Your task to perform on an android device: Open CNN.com Image 0: 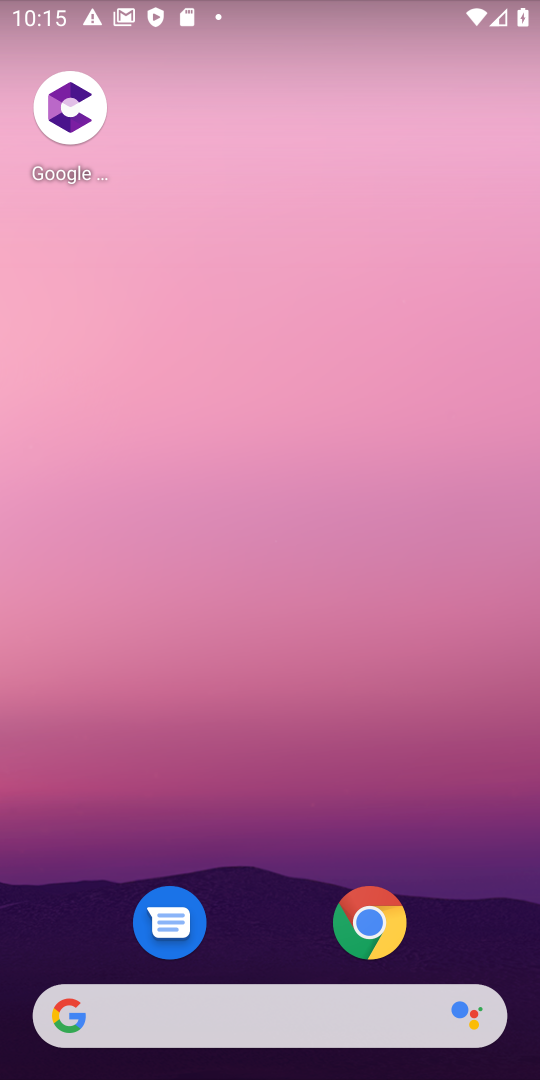
Step 0: drag from (303, 383) to (307, 19)
Your task to perform on an android device: Open CNN.com Image 1: 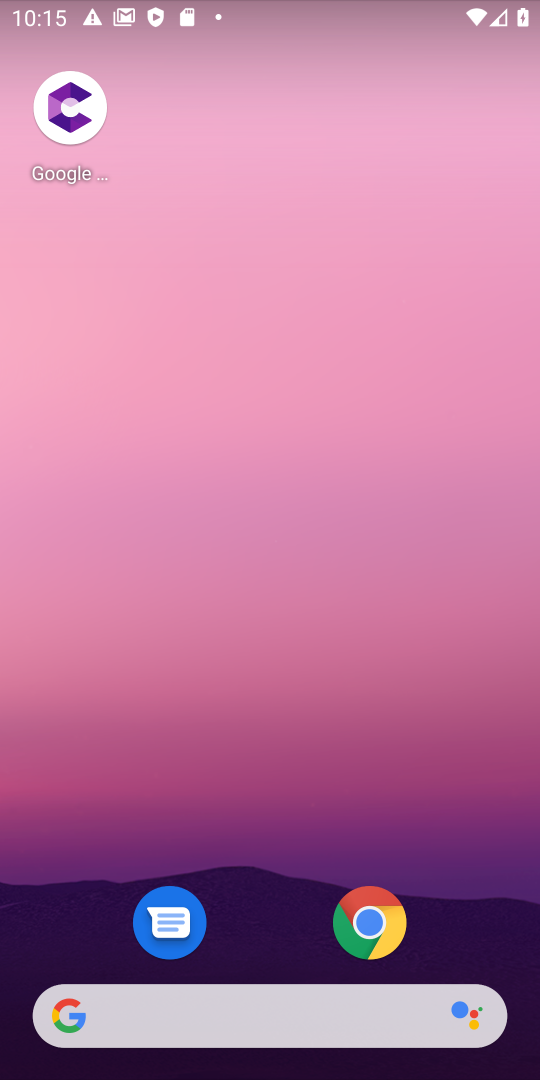
Step 1: drag from (294, 932) to (418, 120)
Your task to perform on an android device: Open CNN.com Image 2: 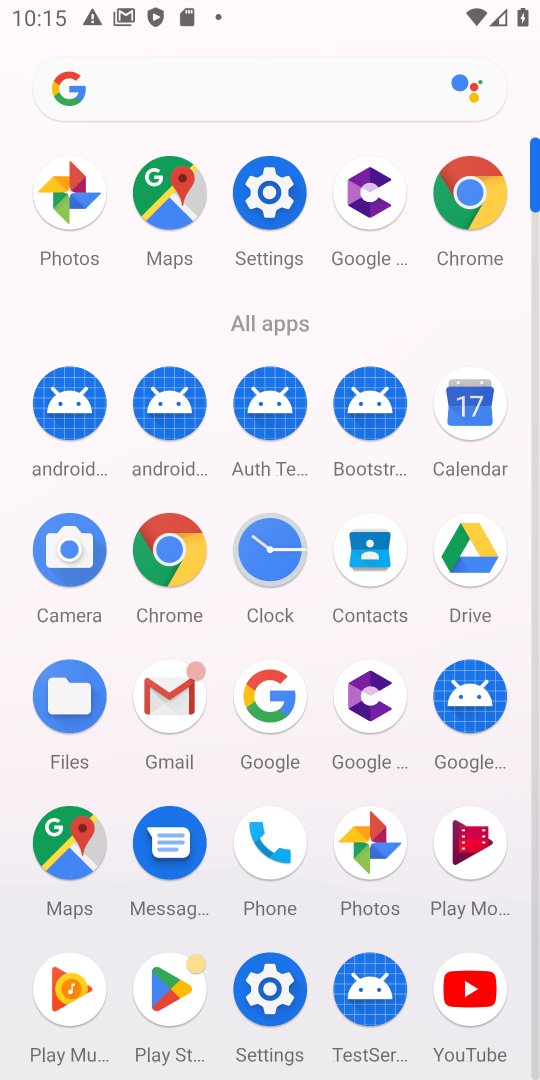
Step 2: click (171, 552)
Your task to perform on an android device: Open CNN.com Image 3: 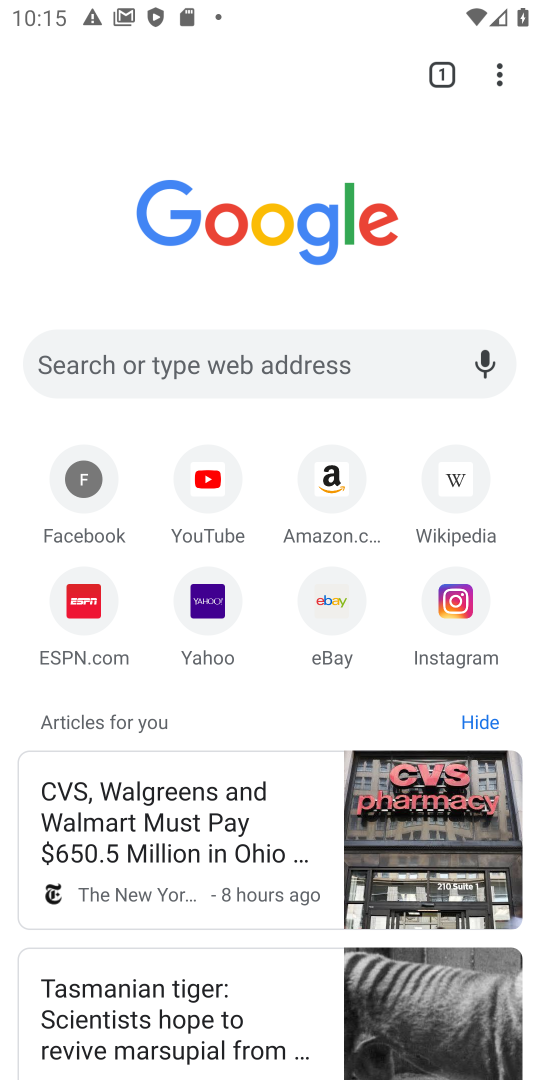
Step 3: click (310, 365)
Your task to perform on an android device: Open CNN.com Image 4: 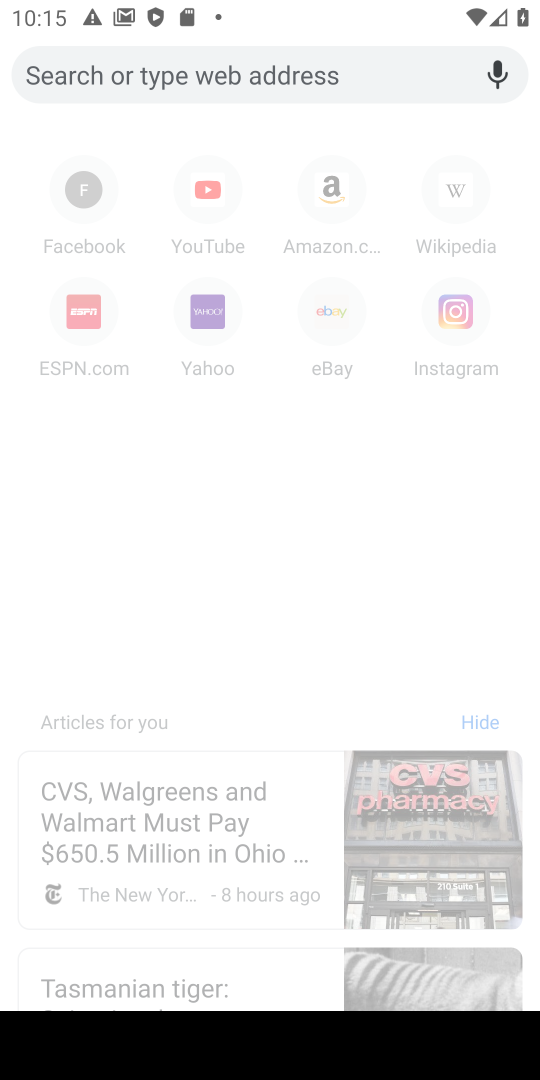
Step 4: type "cnn.cim"
Your task to perform on an android device: Open CNN.com Image 5: 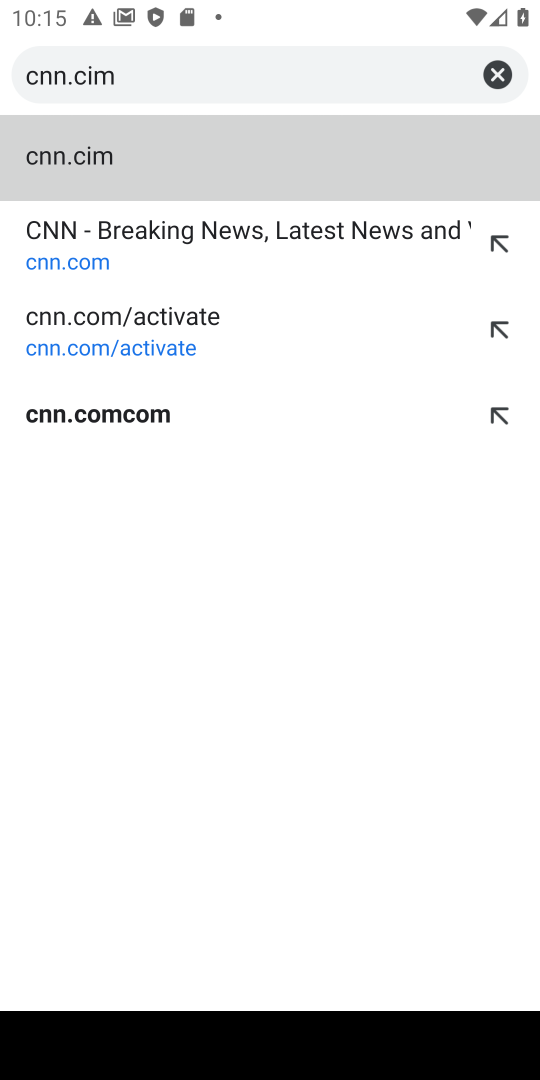
Step 5: click (180, 172)
Your task to perform on an android device: Open CNN.com Image 6: 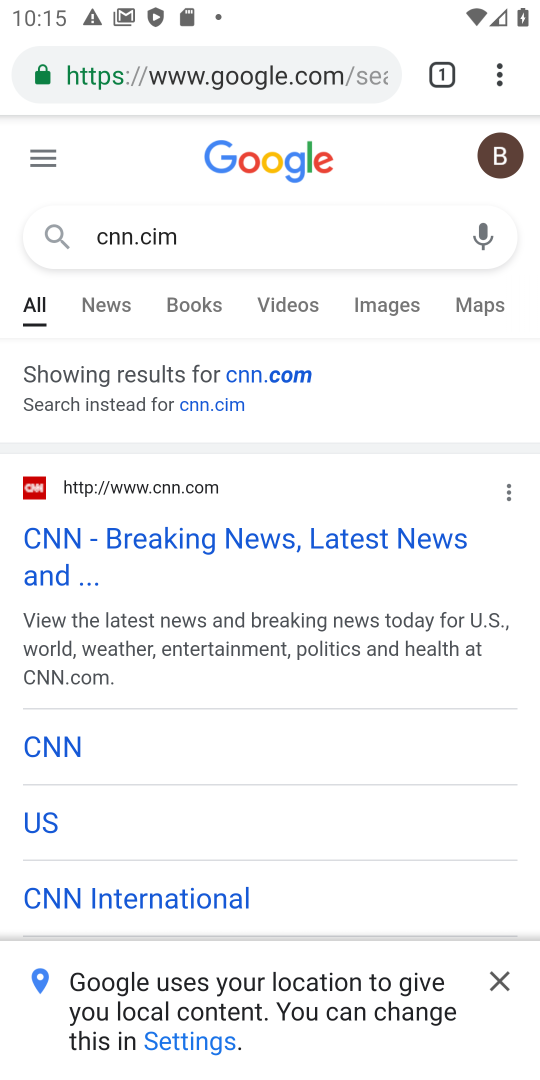
Step 6: click (149, 536)
Your task to perform on an android device: Open CNN.com Image 7: 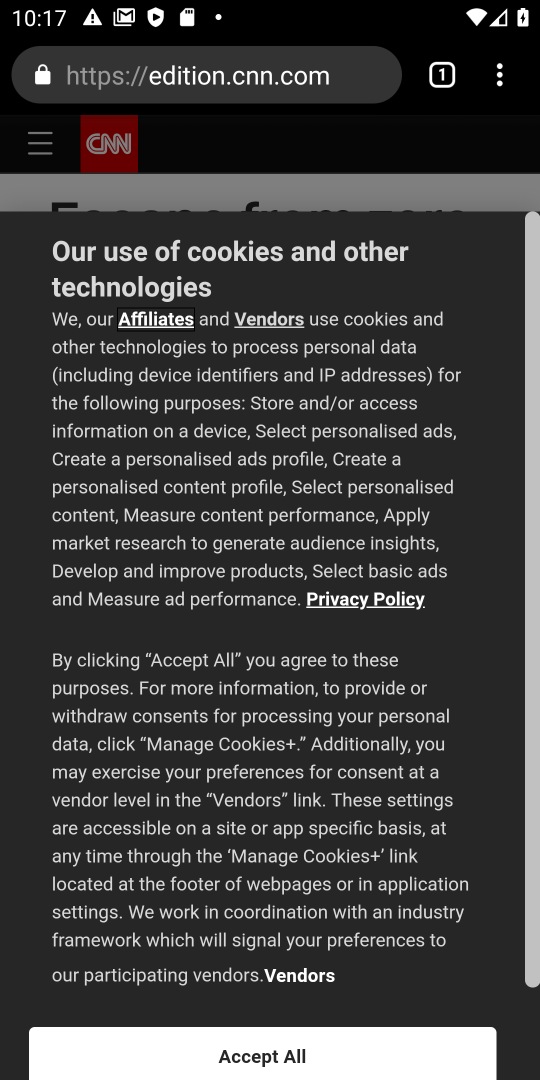
Step 7: task complete